Your task to perform on an android device: open a bookmark in the chrome app Image 0: 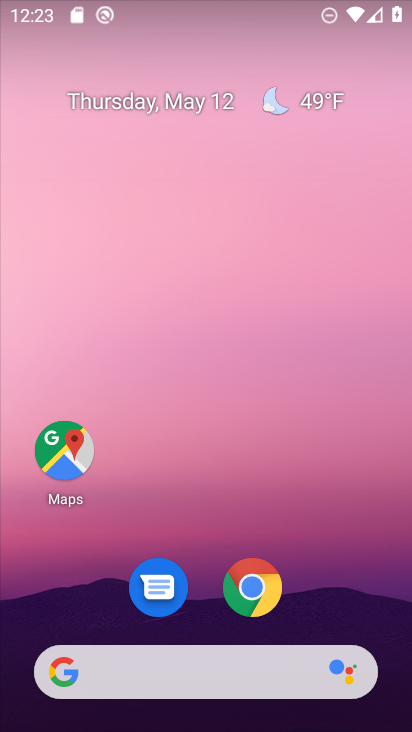
Step 0: drag from (321, 484) to (319, 178)
Your task to perform on an android device: open a bookmark in the chrome app Image 1: 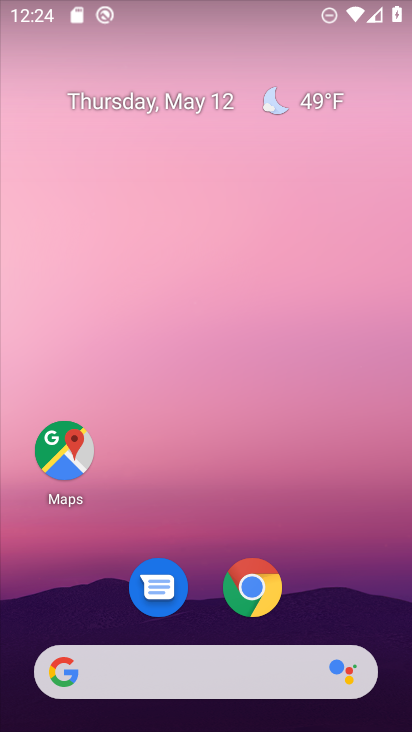
Step 1: drag from (319, 551) to (343, 232)
Your task to perform on an android device: open a bookmark in the chrome app Image 2: 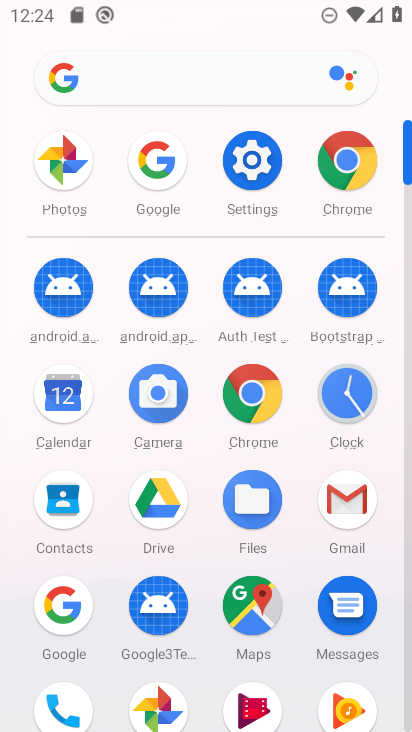
Step 2: click (252, 381)
Your task to perform on an android device: open a bookmark in the chrome app Image 3: 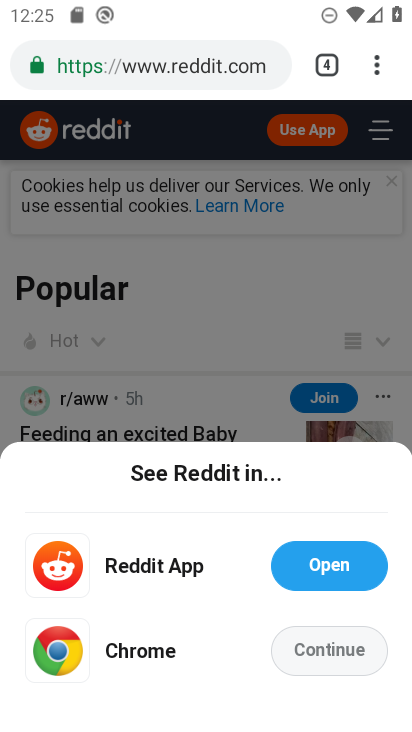
Step 3: click (359, 66)
Your task to perform on an android device: open a bookmark in the chrome app Image 4: 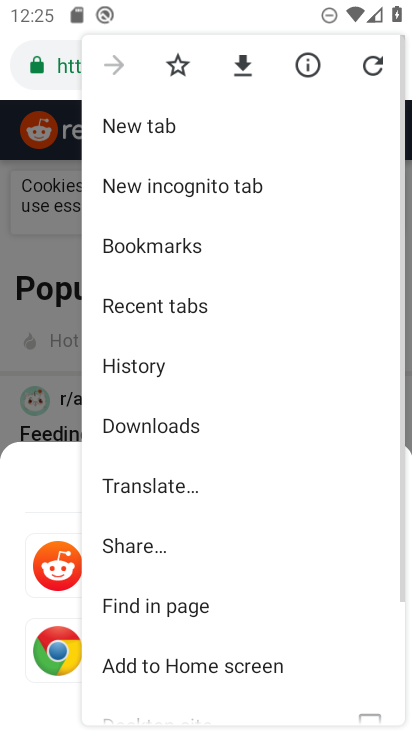
Step 4: click (155, 254)
Your task to perform on an android device: open a bookmark in the chrome app Image 5: 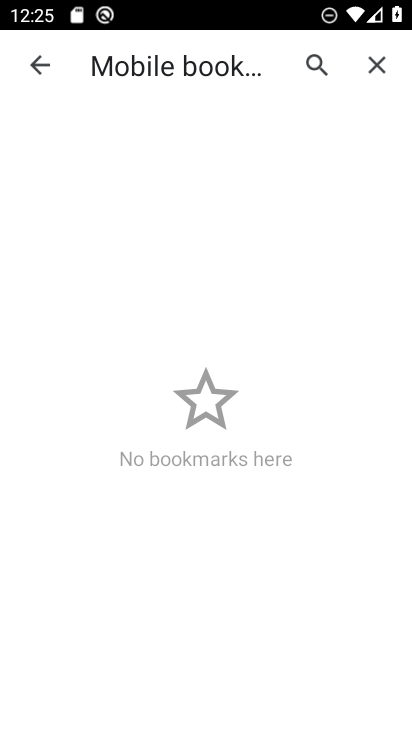
Step 5: task complete